Your task to perform on an android device: Go to Yahoo.com Image 0: 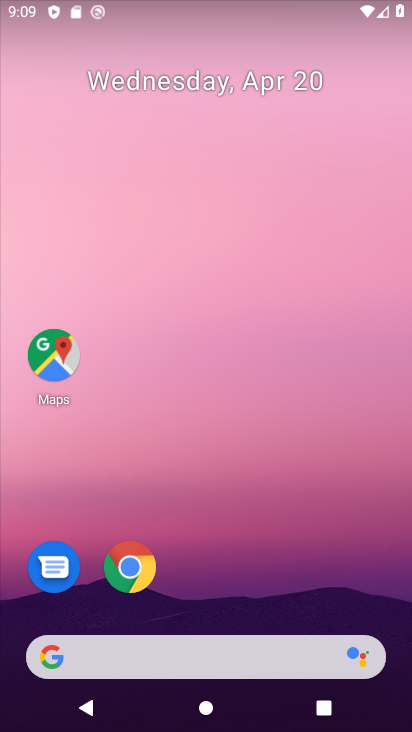
Step 0: drag from (342, 576) to (337, 209)
Your task to perform on an android device: Go to Yahoo.com Image 1: 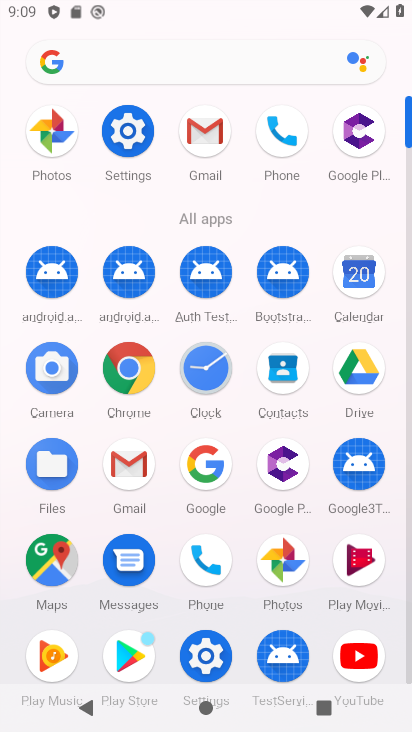
Step 1: click (137, 386)
Your task to perform on an android device: Go to Yahoo.com Image 2: 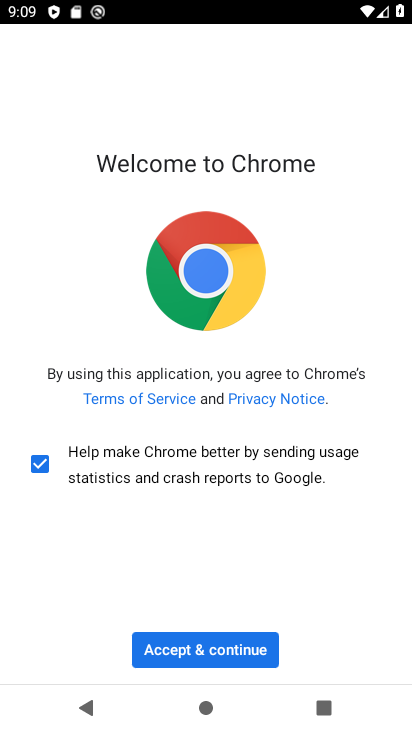
Step 2: click (252, 650)
Your task to perform on an android device: Go to Yahoo.com Image 3: 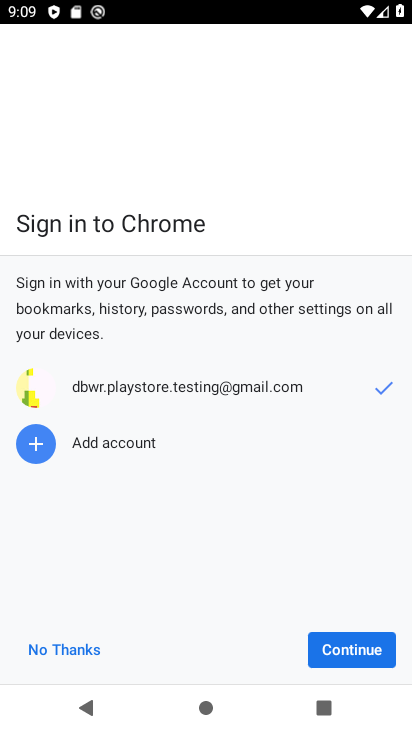
Step 3: click (330, 643)
Your task to perform on an android device: Go to Yahoo.com Image 4: 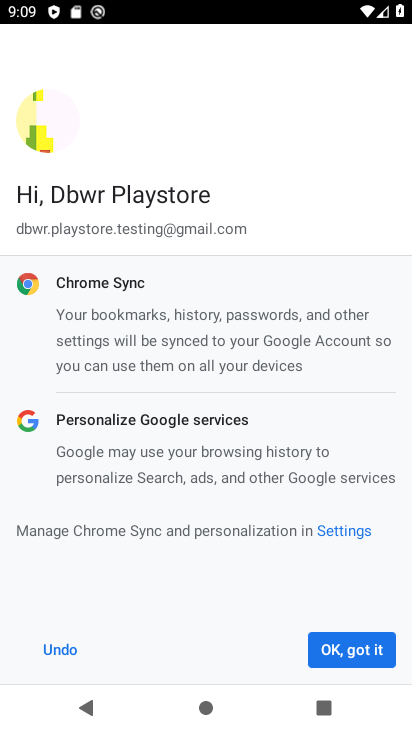
Step 4: click (330, 643)
Your task to perform on an android device: Go to Yahoo.com Image 5: 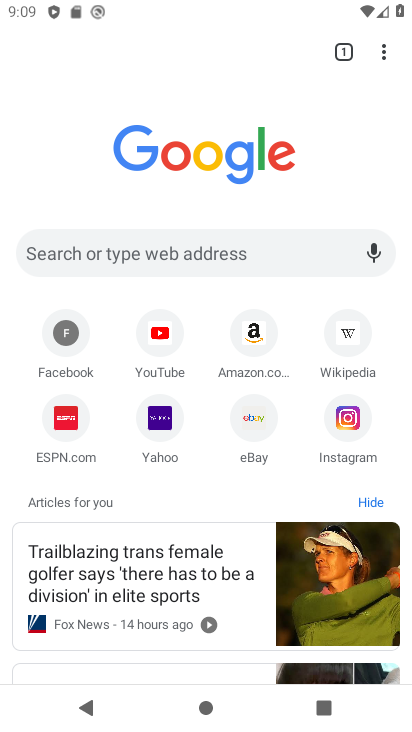
Step 5: click (161, 421)
Your task to perform on an android device: Go to Yahoo.com Image 6: 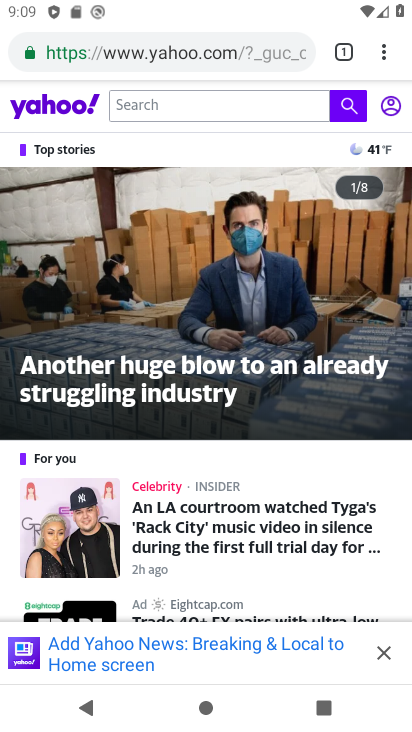
Step 6: task complete